Your task to perform on an android device: change the clock display to show seconds Image 0: 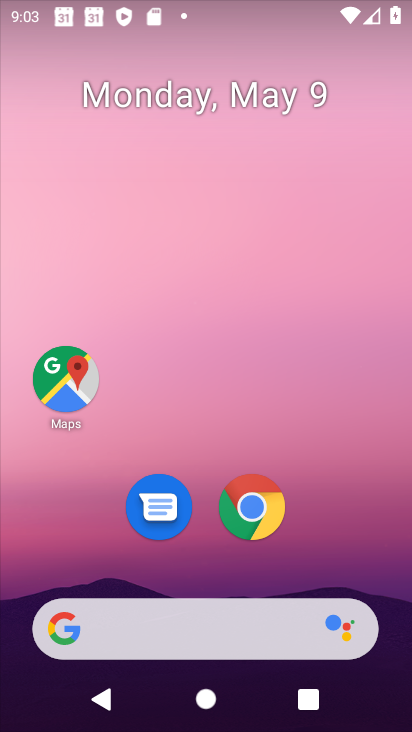
Step 0: drag from (183, 580) to (277, 80)
Your task to perform on an android device: change the clock display to show seconds Image 1: 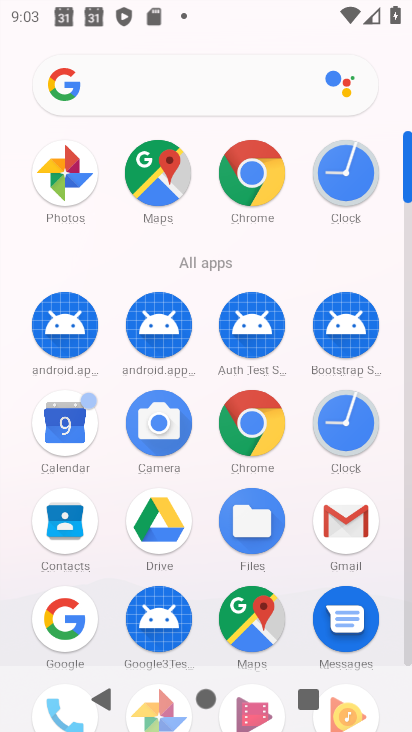
Step 1: click (344, 398)
Your task to perform on an android device: change the clock display to show seconds Image 2: 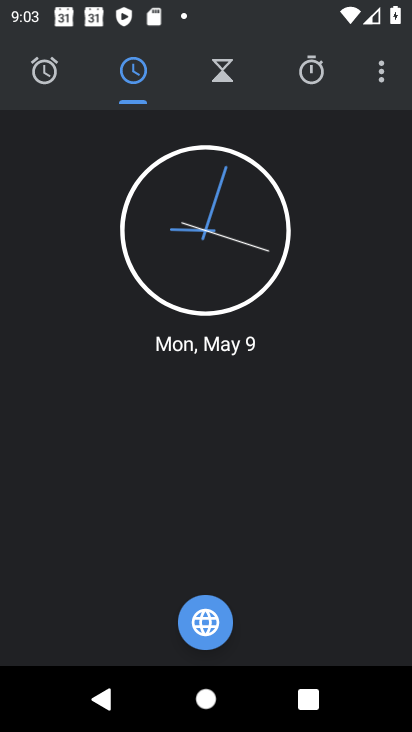
Step 2: click (381, 75)
Your task to perform on an android device: change the clock display to show seconds Image 3: 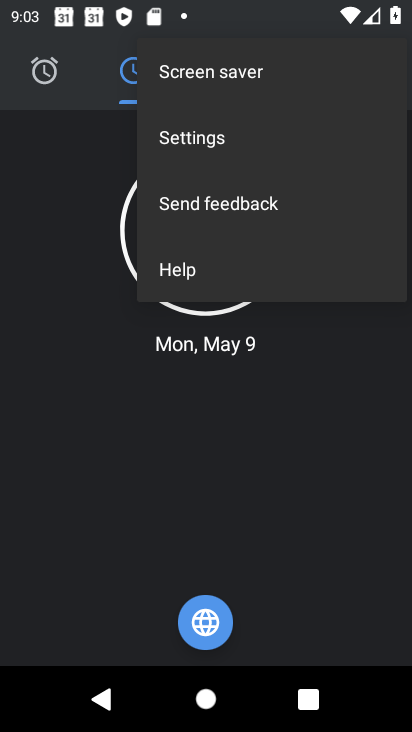
Step 3: click (294, 126)
Your task to perform on an android device: change the clock display to show seconds Image 4: 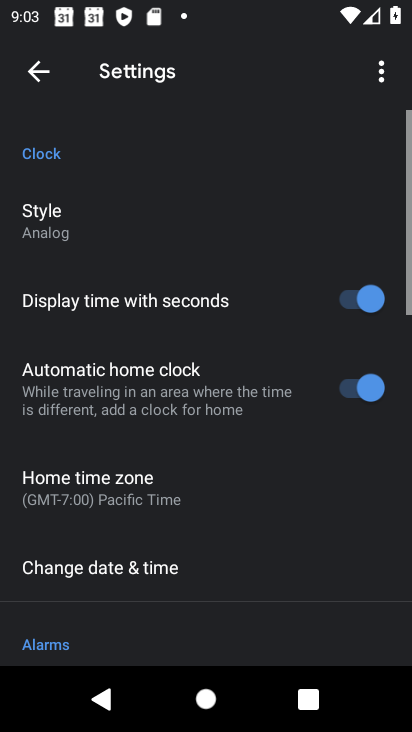
Step 4: click (286, 218)
Your task to perform on an android device: change the clock display to show seconds Image 5: 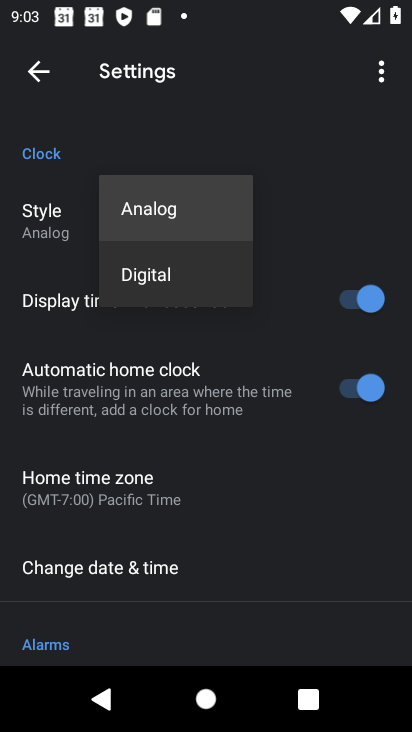
Step 5: click (170, 275)
Your task to perform on an android device: change the clock display to show seconds Image 6: 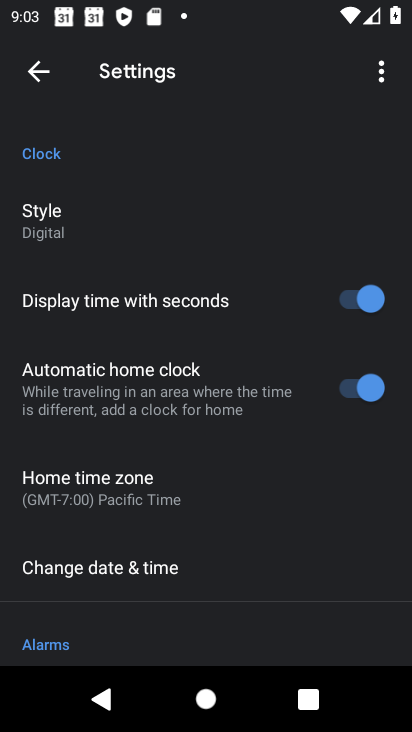
Step 6: task complete